Your task to perform on an android device: set an alarm Image 0: 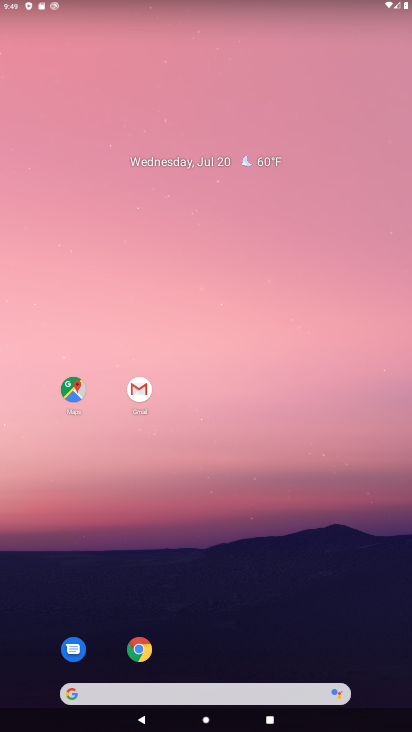
Step 0: drag from (399, 718) to (254, 78)
Your task to perform on an android device: set an alarm Image 1: 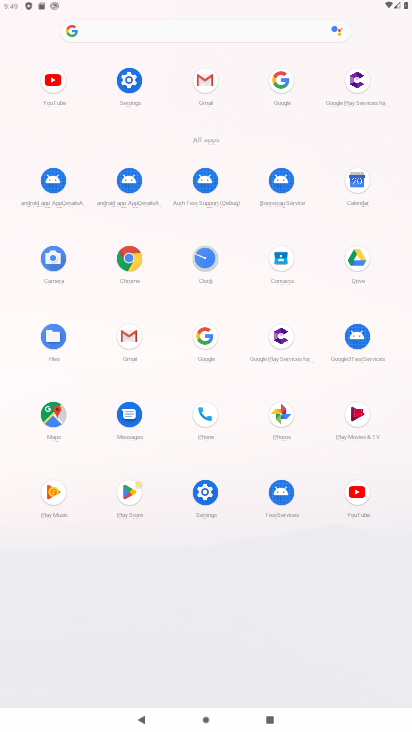
Step 1: click (210, 264)
Your task to perform on an android device: set an alarm Image 2: 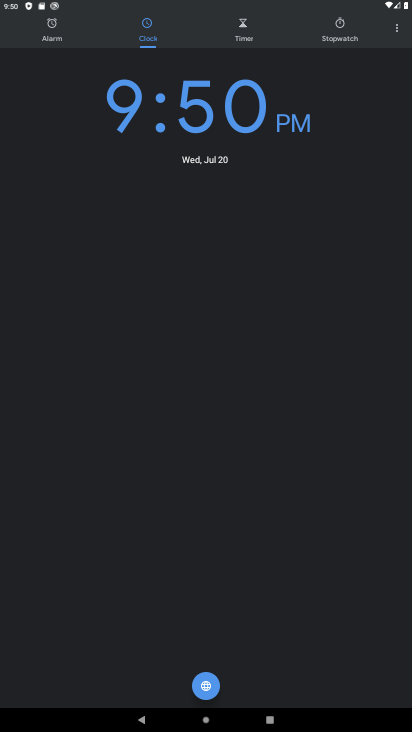
Step 2: click (48, 30)
Your task to perform on an android device: set an alarm Image 3: 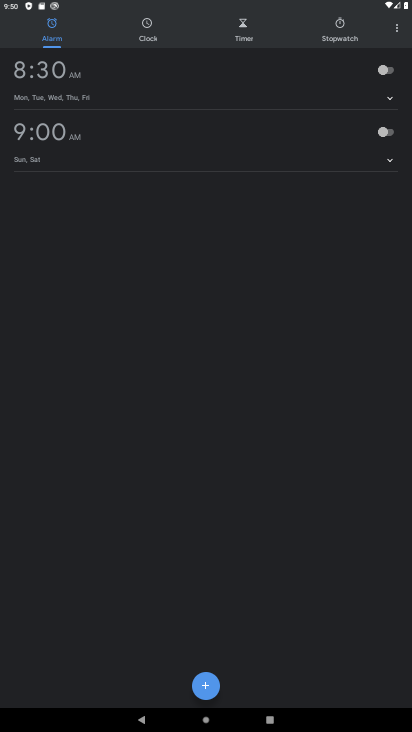
Step 3: click (383, 69)
Your task to perform on an android device: set an alarm Image 4: 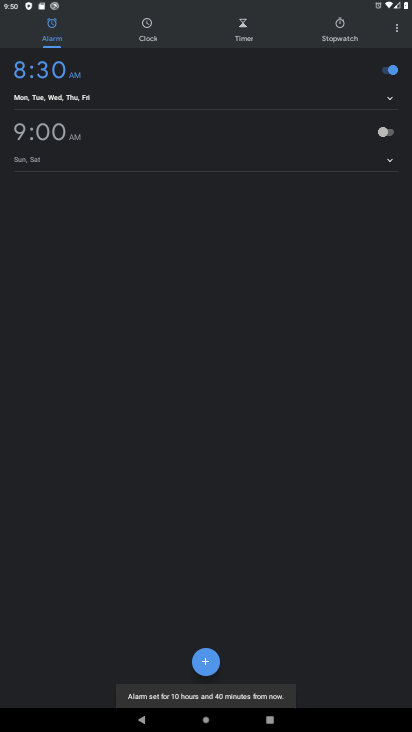
Step 4: task complete